Your task to perform on an android device: Open display settings Image 0: 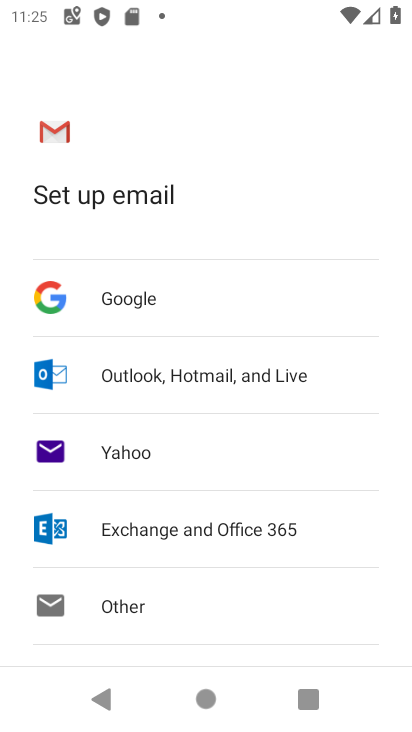
Step 0: press home button
Your task to perform on an android device: Open display settings Image 1: 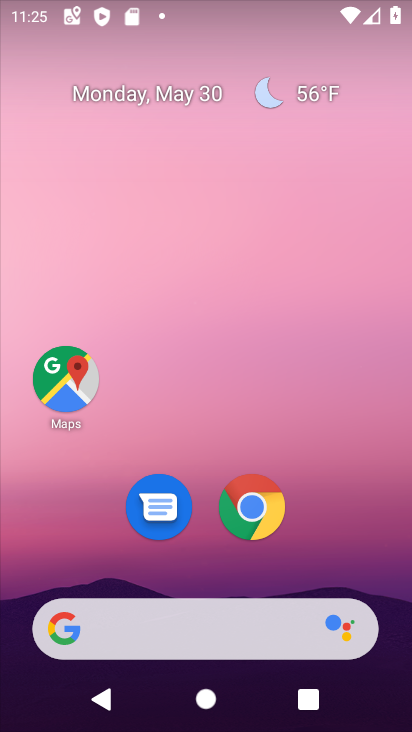
Step 1: drag from (348, 554) to (326, 107)
Your task to perform on an android device: Open display settings Image 2: 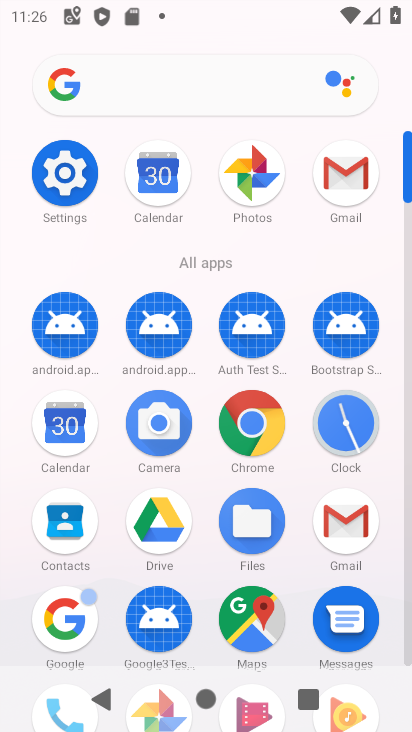
Step 2: click (51, 190)
Your task to perform on an android device: Open display settings Image 3: 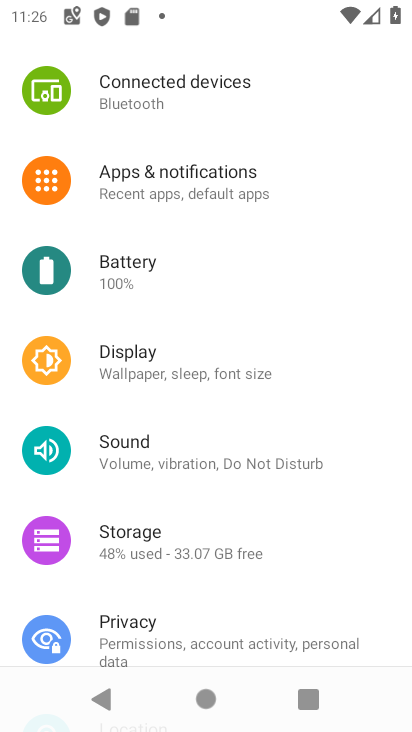
Step 3: click (175, 368)
Your task to perform on an android device: Open display settings Image 4: 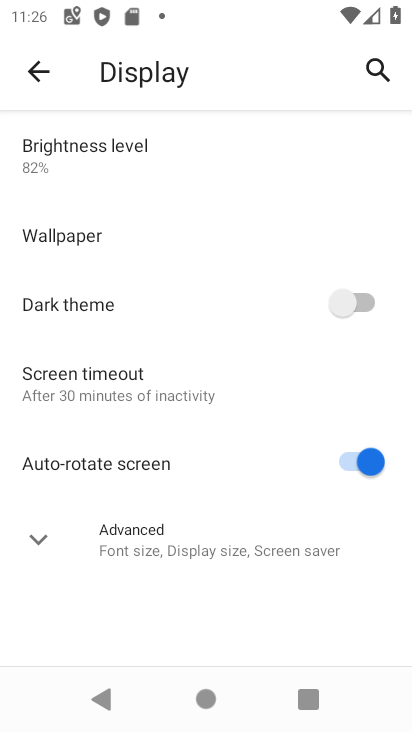
Step 4: task complete